Your task to perform on an android device: What's on my calendar today? Image 0: 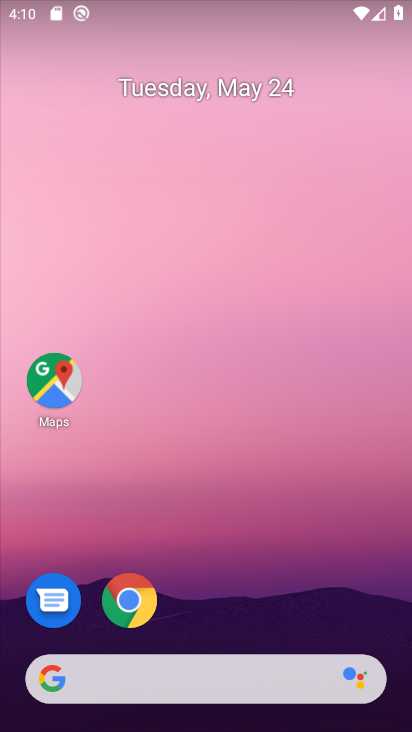
Step 0: drag from (139, 620) to (188, 7)
Your task to perform on an android device: What's on my calendar today? Image 1: 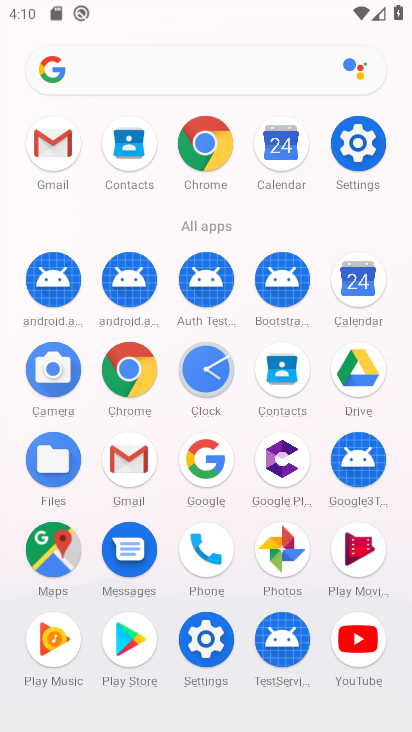
Step 1: click (355, 284)
Your task to perform on an android device: What's on my calendar today? Image 2: 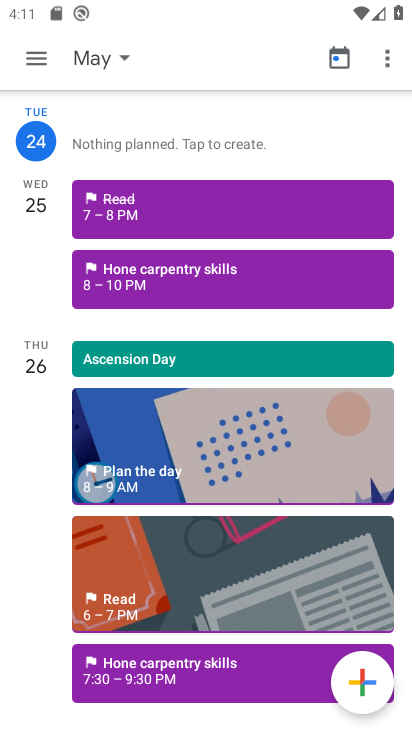
Step 2: click (113, 58)
Your task to perform on an android device: What's on my calendar today? Image 3: 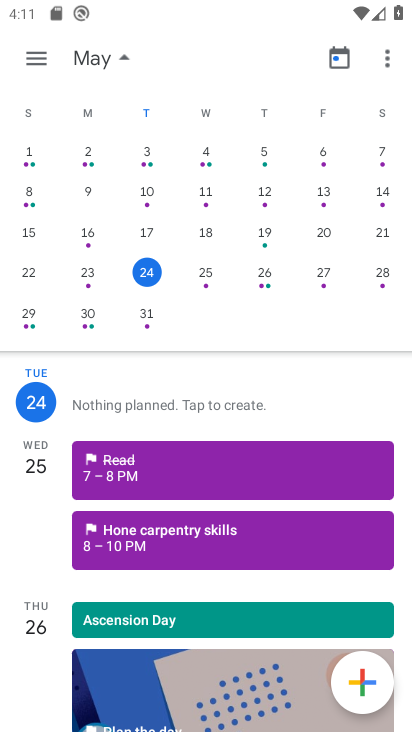
Step 3: click (158, 273)
Your task to perform on an android device: What's on my calendar today? Image 4: 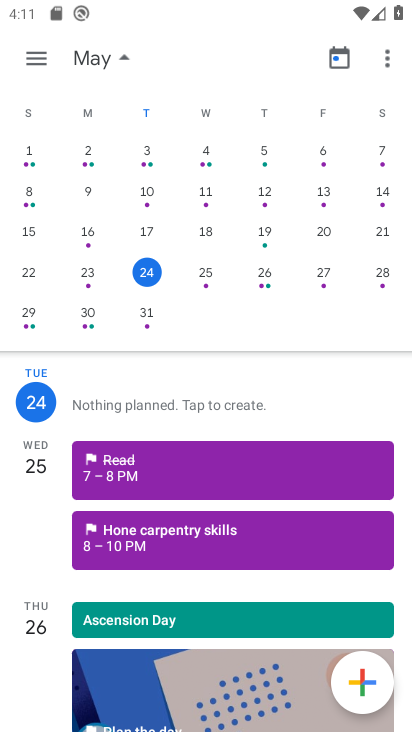
Step 4: task complete